Your task to perform on an android device: toggle notification dots Image 0: 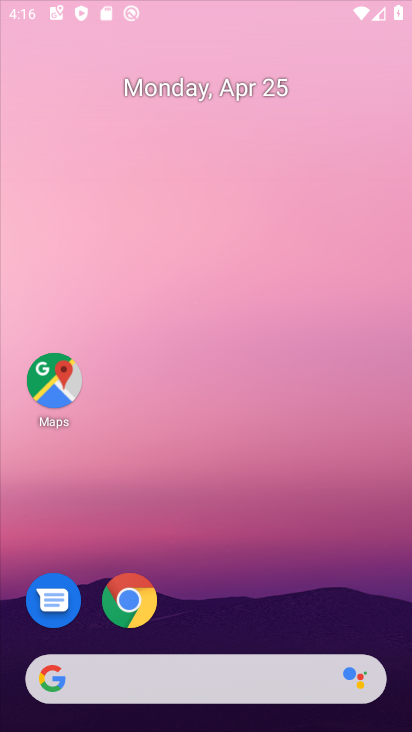
Step 0: click (208, 11)
Your task to perform on an android device: toggle notification dots Image 1: 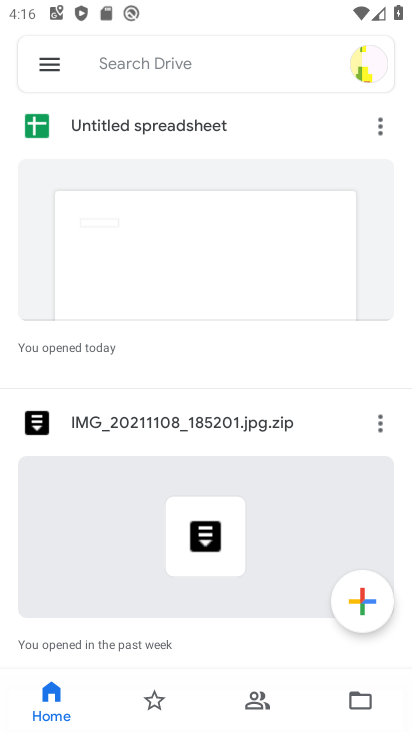
Step 1: press back button
Your task to perform on an android device: toggle notification dots Image 2: 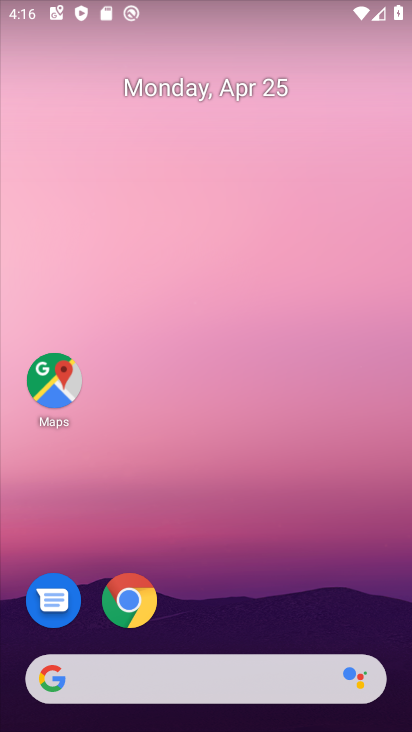
Step 2: drag from (255, 538) to (138, 0)
Your task to perform on an android device: toggle notification dots Image 3: 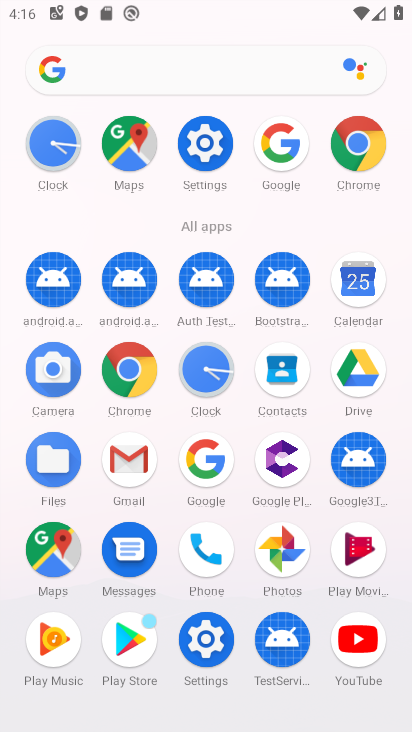
Step 3: click (203, 142)
Your task to perform on an android device: toggle notification dots Image 4: 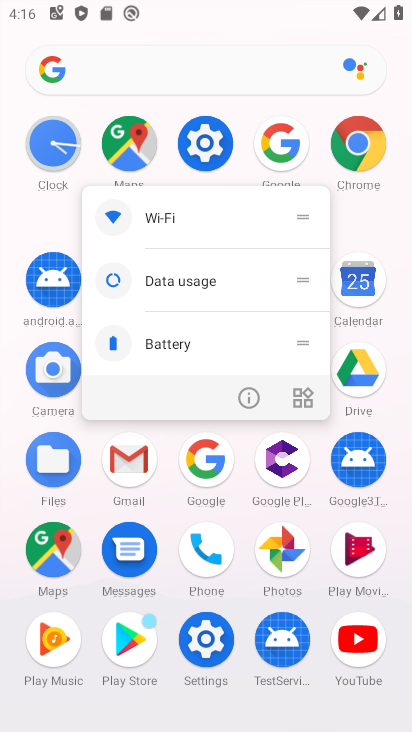
Step 4: click (203, 142)
Your task to perform on an android device: toggle notification dots Image 5: 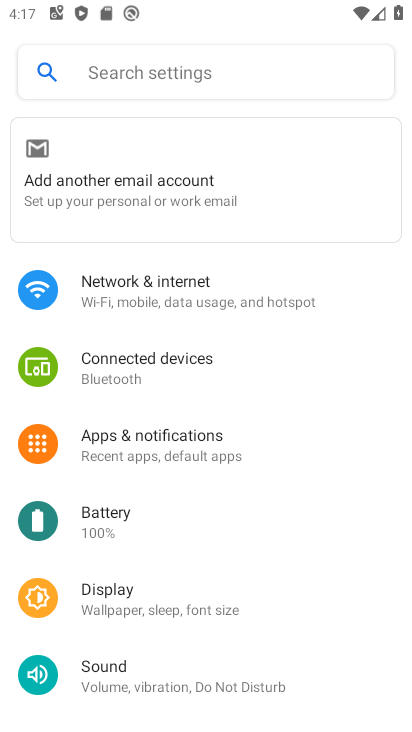
Step 5: drag from (207, 586) to (253, 271)
Your task to perform on an android device: toggle notification dots Image 6: 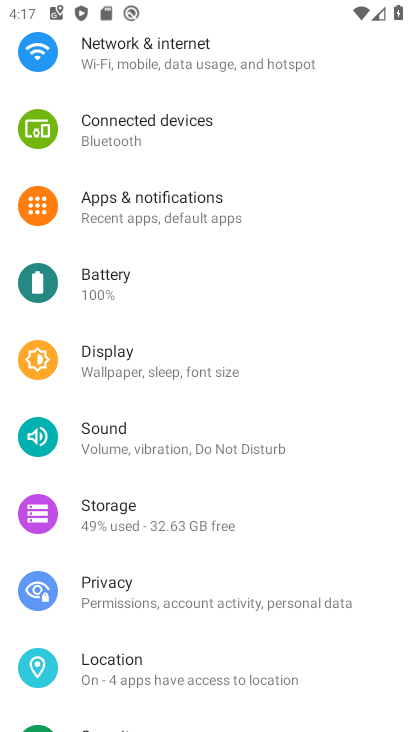
Step 6: click (188, 204)
Your task to perform on an android device: toggle notification dots Image 7: 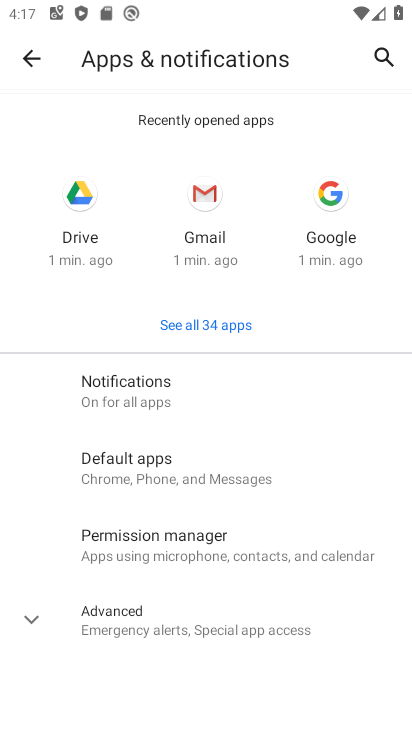
Step 7: click (185, 379)
Your task to perform on an android device: toggle notification dots Image 8: 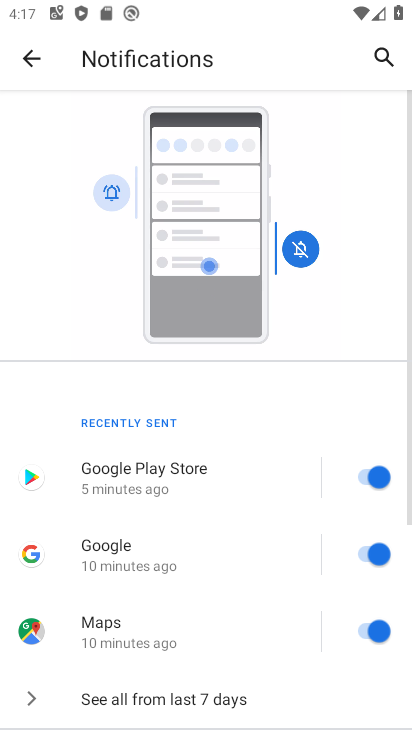
Step 8: drag from (188, 636) to (274, 96)
Your task to perform on an android device: toggle notification dots Image 9: 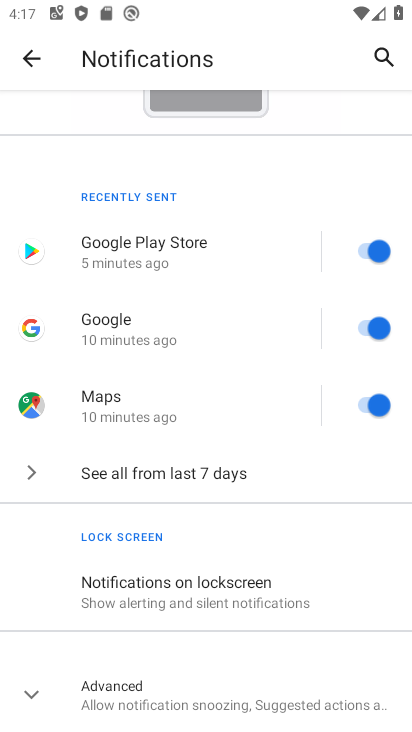
Step 9: drag from (174, 591) to (220, 186)
Your task to perform on an android device: toggle notification dots Image 10: 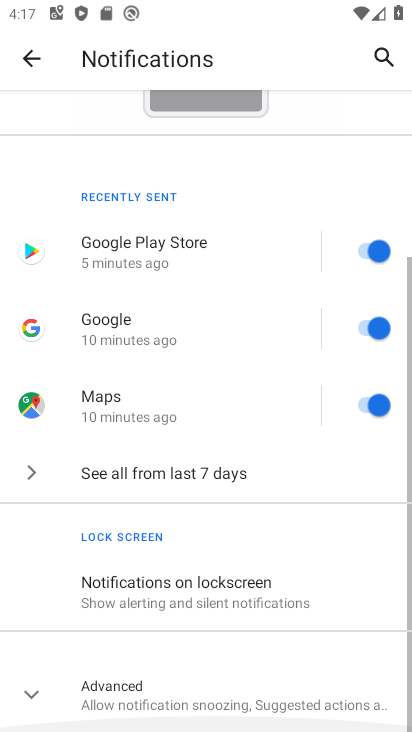
Step 10: click (71, 688)
Your task to perform on an android device: toggle notification dots Image 11: 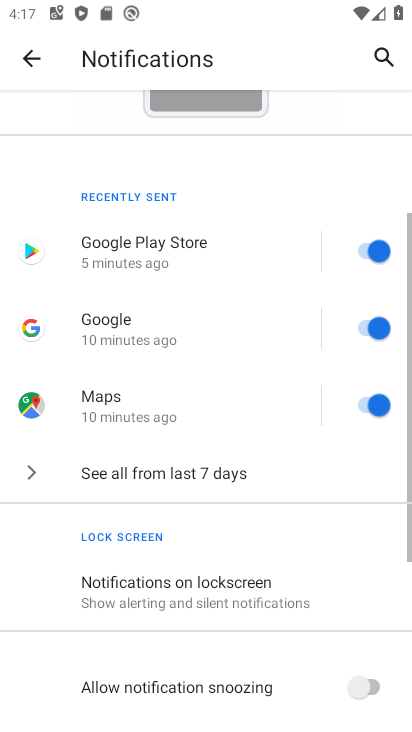
Step 11: drag from (217, 677) to (289, 253)
Your task to perform on an android device: toggle notification dots Image 12: 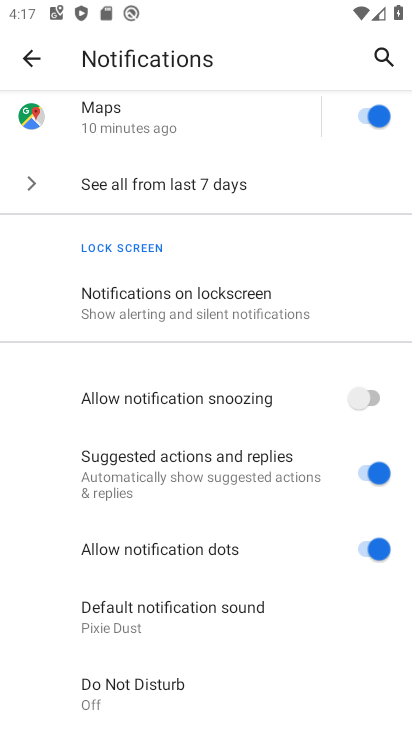
Step 12: click (386, 546)
Your task to perform on an android device: toggle notification dots Image 13: 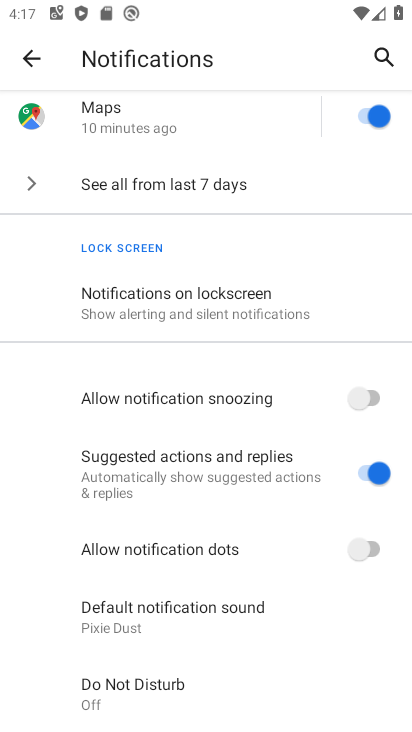
Step 13: task complete